Your task to perform on an android device: turn on sleep mode Image 0: 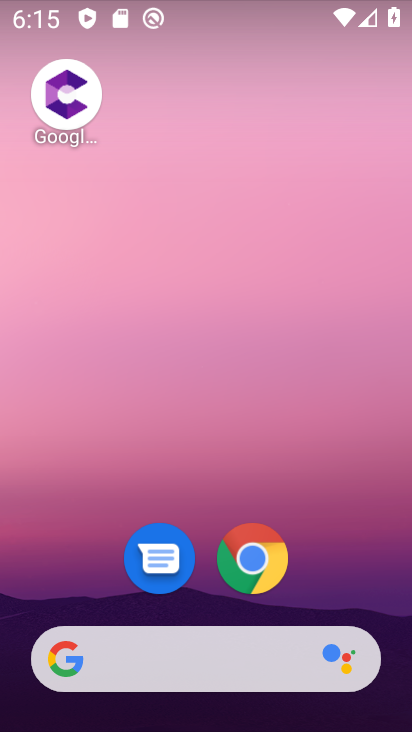
Step 0: drag from (396, 618) to (319, 22)
Your task to perform on an android device: turn on sleep mode Image 1: 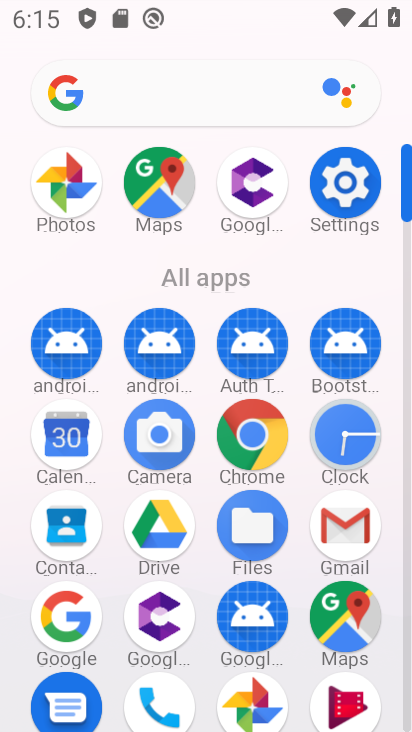
Step 1: click (348, 206)
Your task to perform on an android device: turn on sleep mode Image 2: 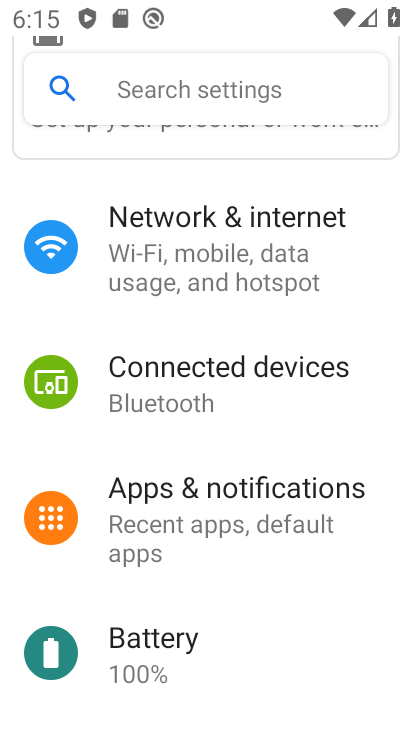
Step 2: drag from (303, 518) to (251, 207)
Your task to perform on an android device: turn on sleep mode Image 3: 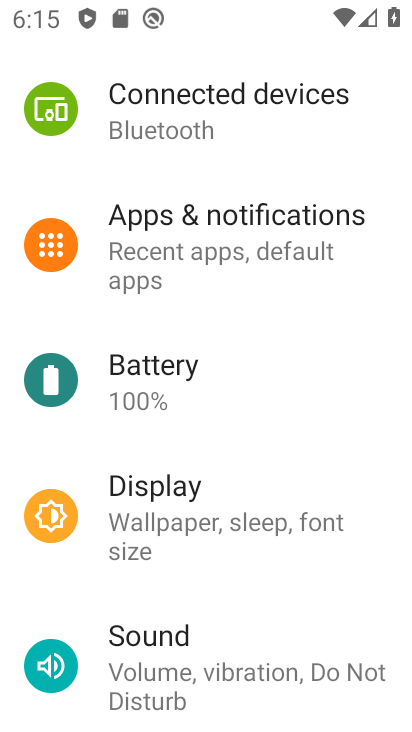
Step 3: click (245, 478)
Your task to perform on an android device: turn on sleep mode Image 4: 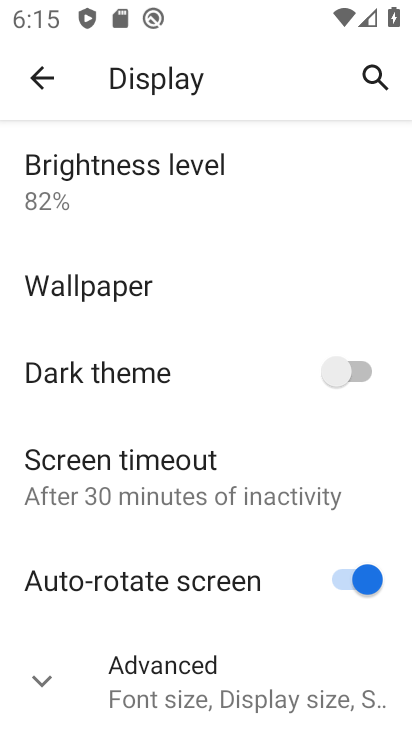
Step 4: task complete